Your task to perform on an android device: Open privacy settings Image 0: 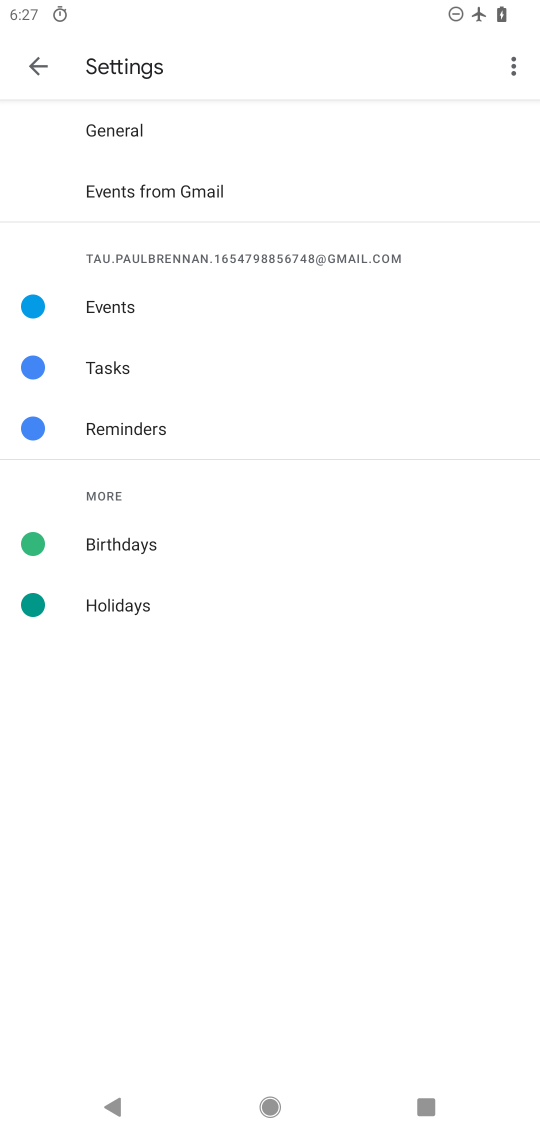
Step 0: press home button
Your task to perform on an android device: Open privacy settings Image 1: 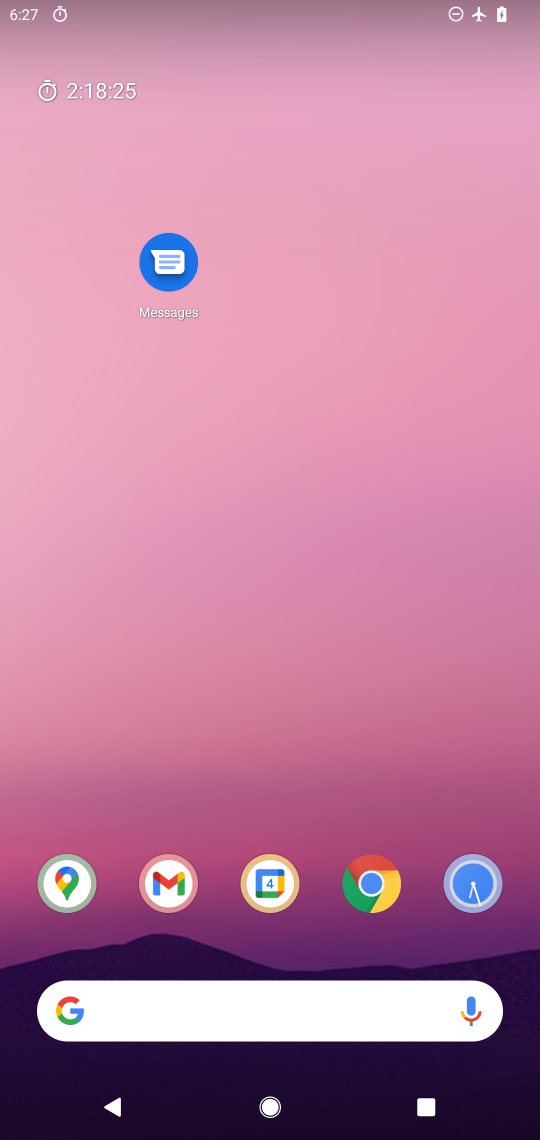
Step 1: drag from (291, 967) to (293, 129)
Your task to perform on an android device: Open privacy settings Image 2: 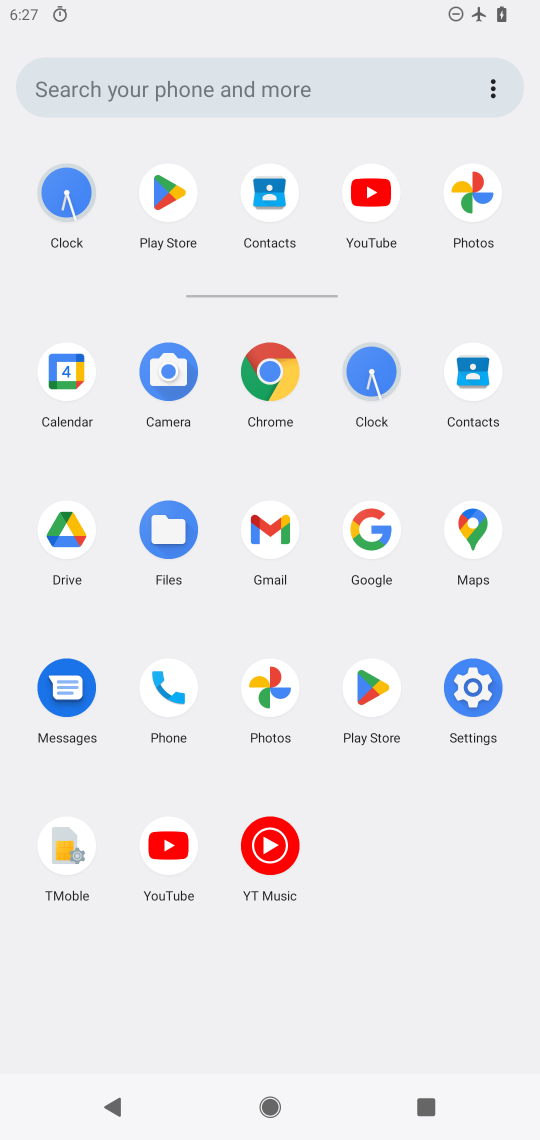
Step 2: click (464, 703)
Your task to perform on an android device: Open privacy settings Image 3: 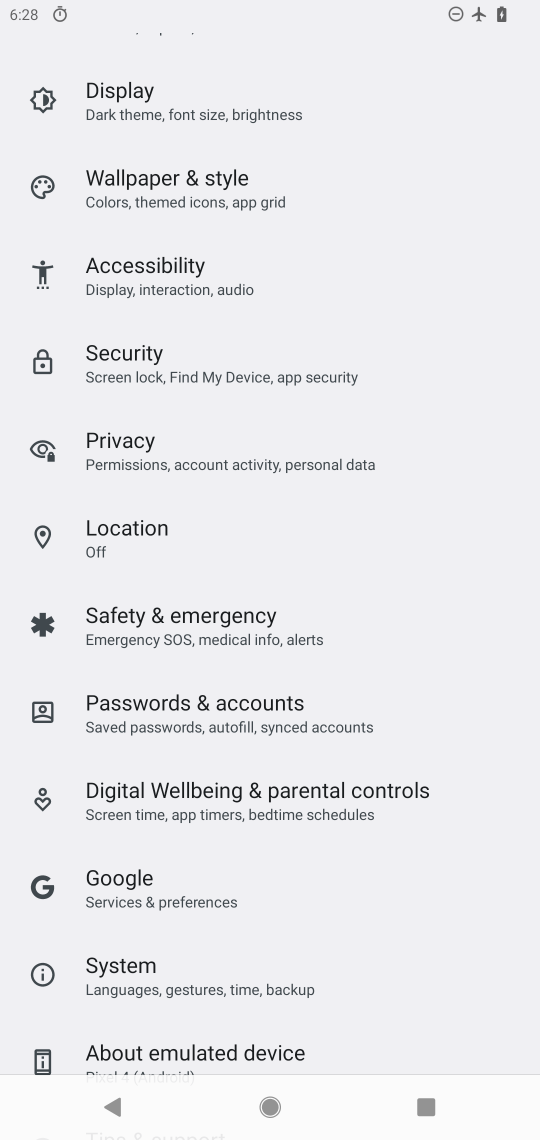
Step 3: click (171, 477)
Your task to perform on an android device: Open privacy settings Image 4: 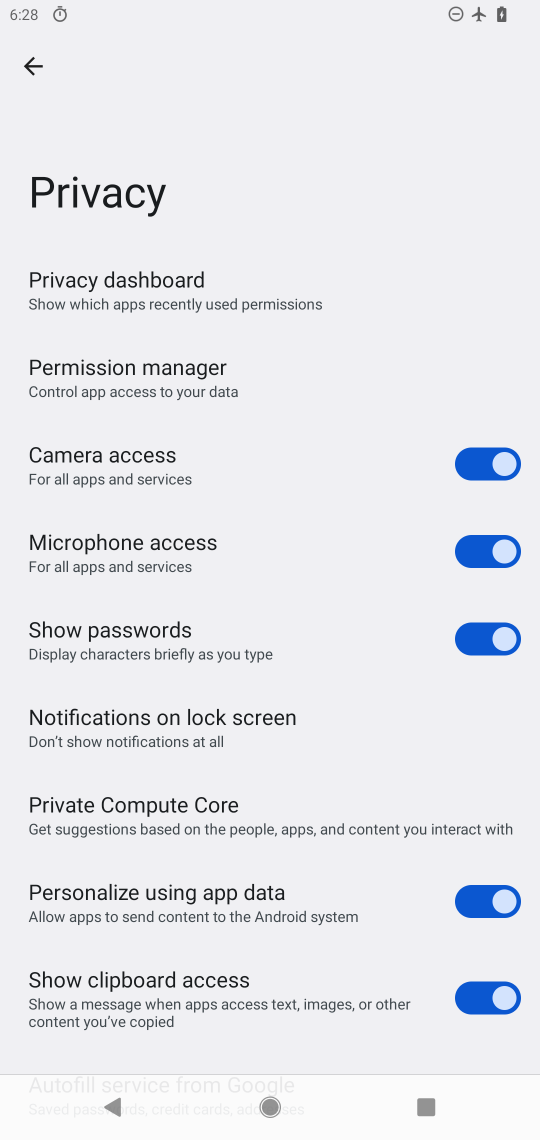
Step 4: task complete